Your task to perform on an android device: turn off notifications in google photos Image 0: 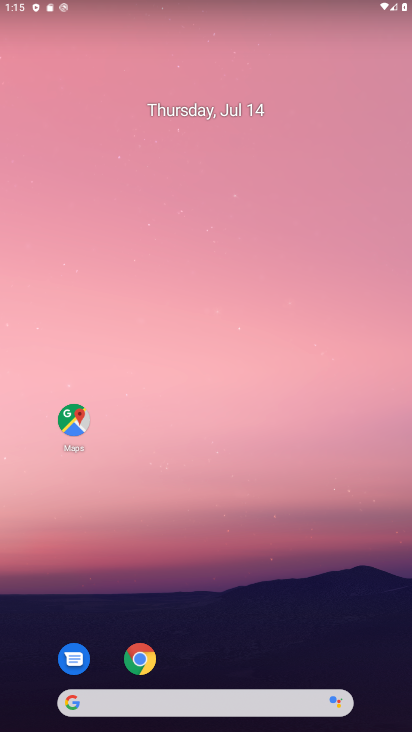
Step 0: drag from (266, 642) to (218, 274)
Your task to perform on an android device: turn off notifications in google photos Image 1: 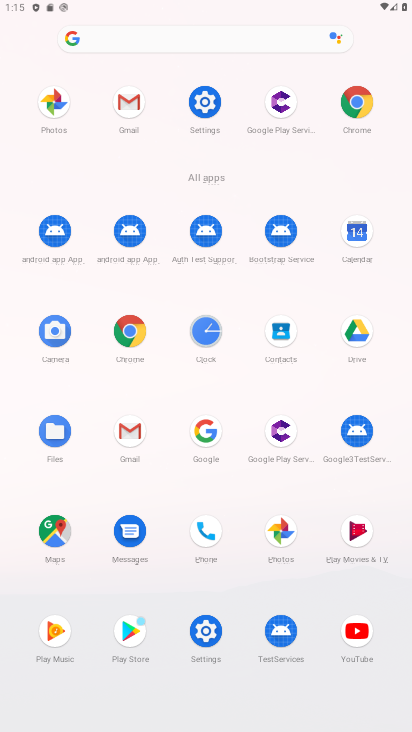
Step 1: click (271, 543)
Your task to perform on an android device: turn off notifications in google photos Image 2: 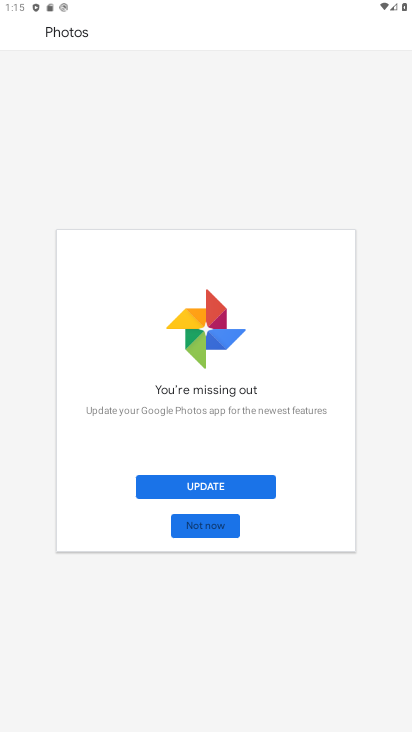
Step 2: click (193, 517)
Your task to perform on an android device: turn off notifications in google photos Image 3: 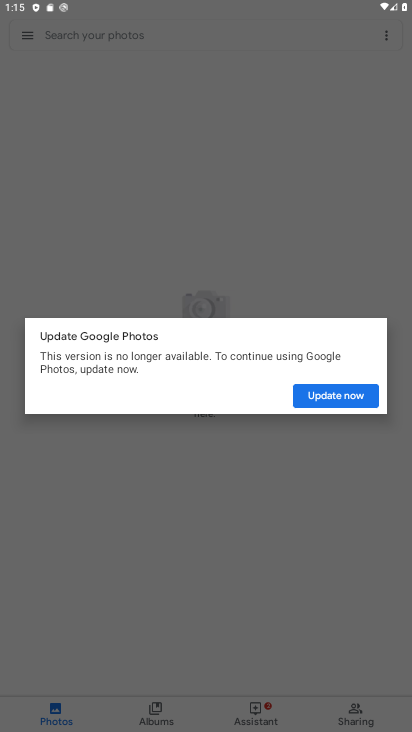
Step 3: click (335, 404)
Your task to perform on an android device: turn off notifications in google photos Image 4: 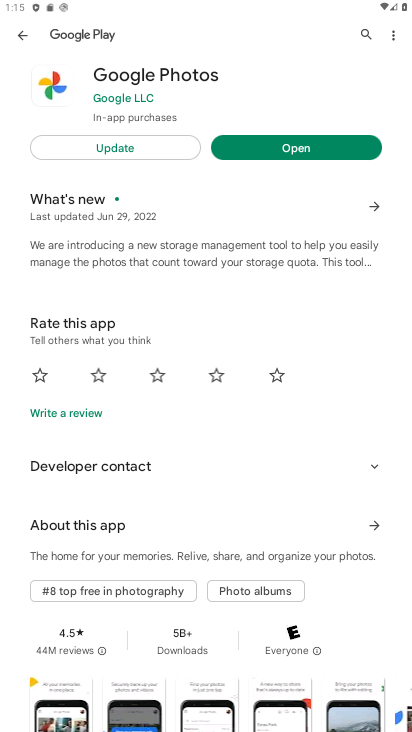
Step 4: click (234, 151)
Your task to perform on an android device: turn off notifications in google photos Image 5: 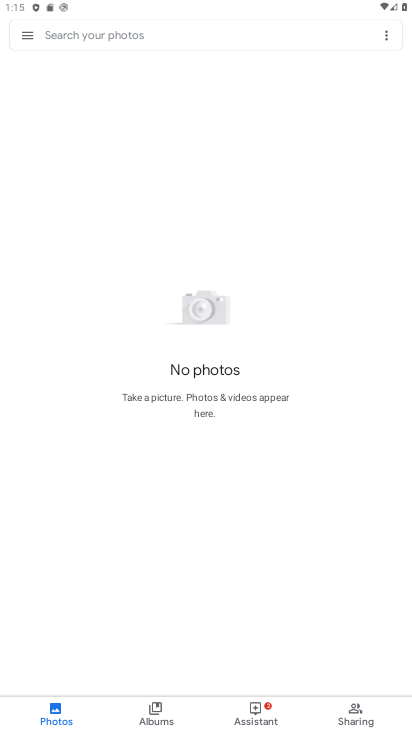
Step 5: click (25, 30)
Your task to perform on an android device: turn off notifications in google photos Image 6: 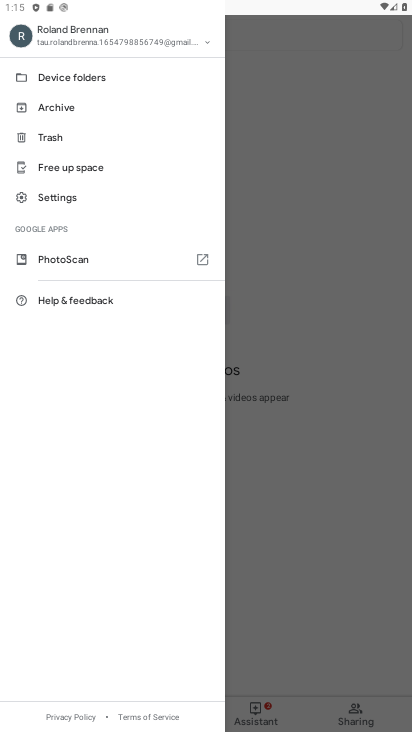
Step 6: click (69, 199)
Your task to perform on an android device: turn off notifications in google photos Image 7: 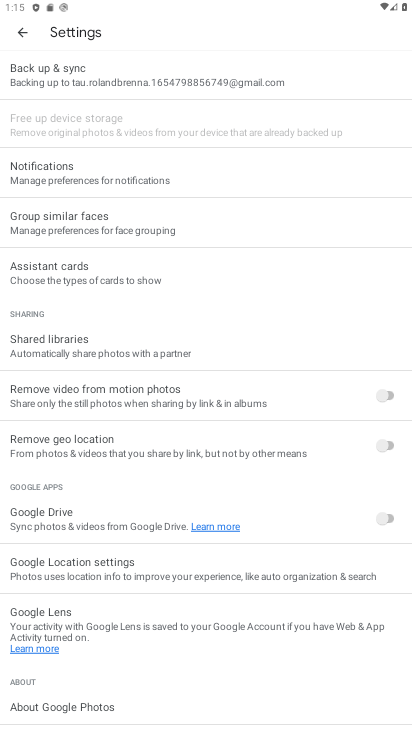
Step 7: click (105, 175)
Your task to perform on an android device: turn off notifications in google photos Image 8: 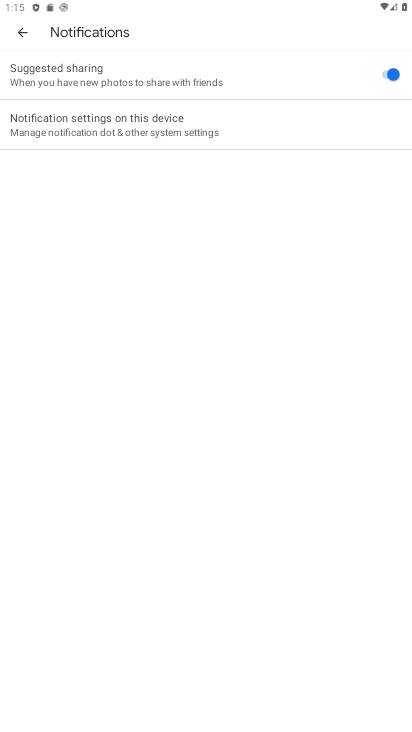
Step 8: click (222, 132)
Your task to perform on an android device: turn off notifications in google photos Image 9: 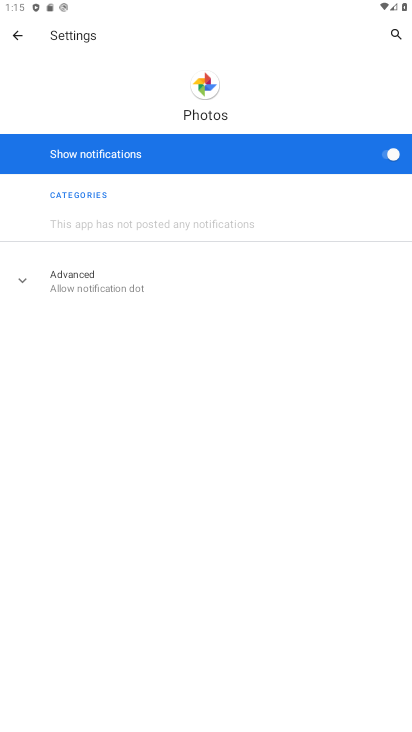
Step 9: click (388, 153)
Your task to perform on an android device: turn off notifications in google photos Image 10: 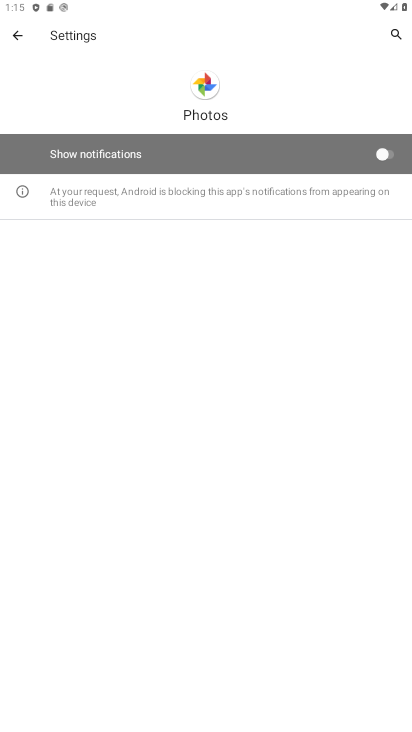
Step 10: task complete